Your task to perform on an android device: Open Wikipedia Image 0: 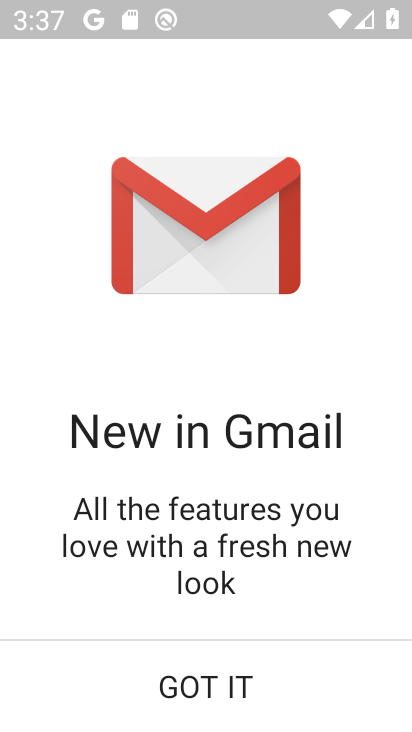
Step 0: press home button
Your task to perform on an android device: Open Wikipedia Image 1: 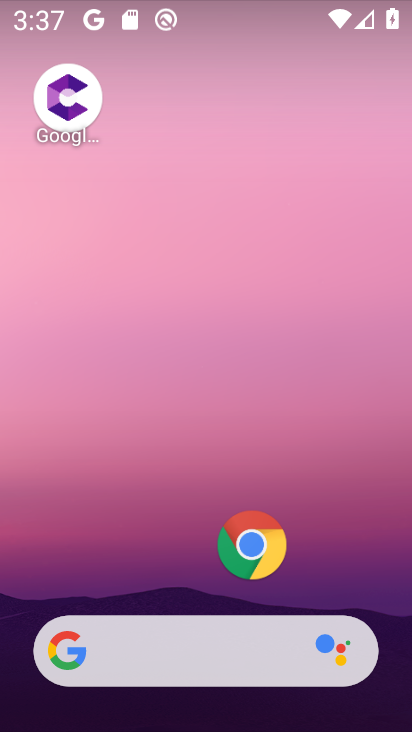
Step 1: click (230, 556)
Your task to perform on an android device: Open Wikipedia Image 2: 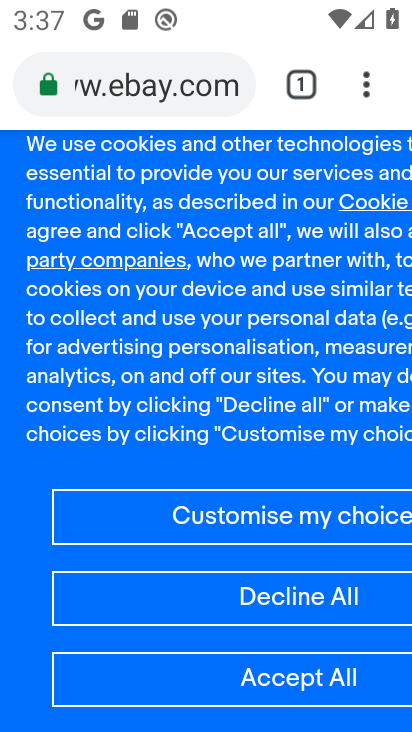
Step 2: click (303, 83)
Your task to perform on an android device: Open Wikipedia Image 3: 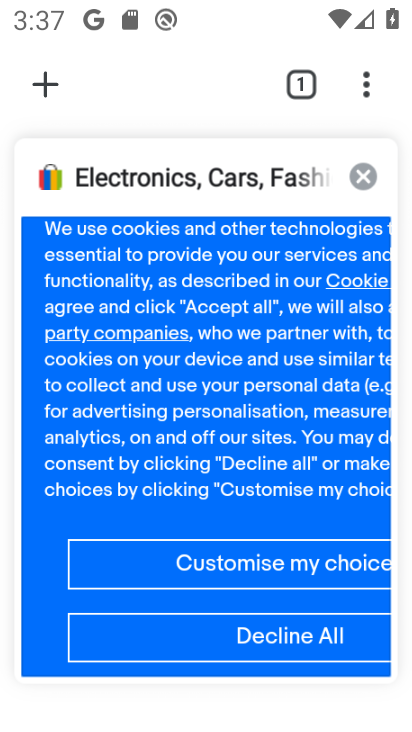
Step 3: click (41, 72)
Your task to perform on an android device: Open Wikipedia Image 4: 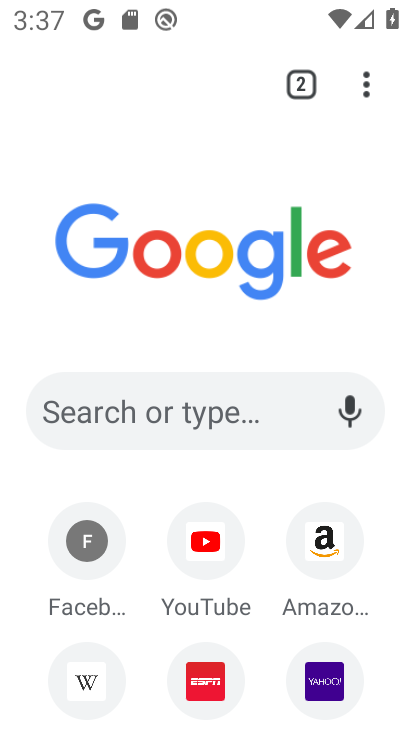
Step 4: click (88, 669)
Your task to perform on an android device: Open Wikipedia Image 5: 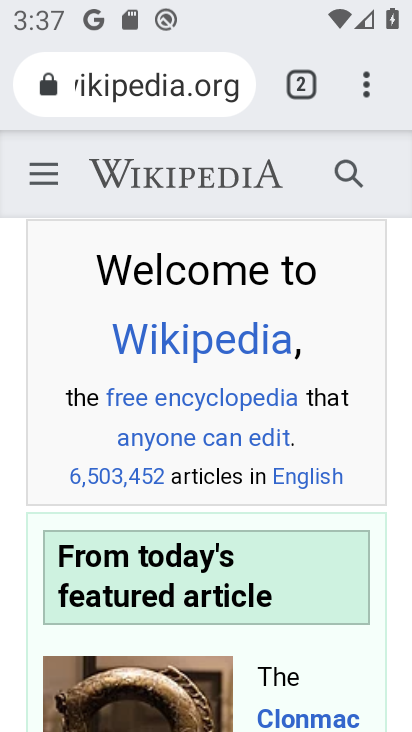
Step 5: task complete